Your task to perform on an android device: How much does the TCL TV cost? Image 0: 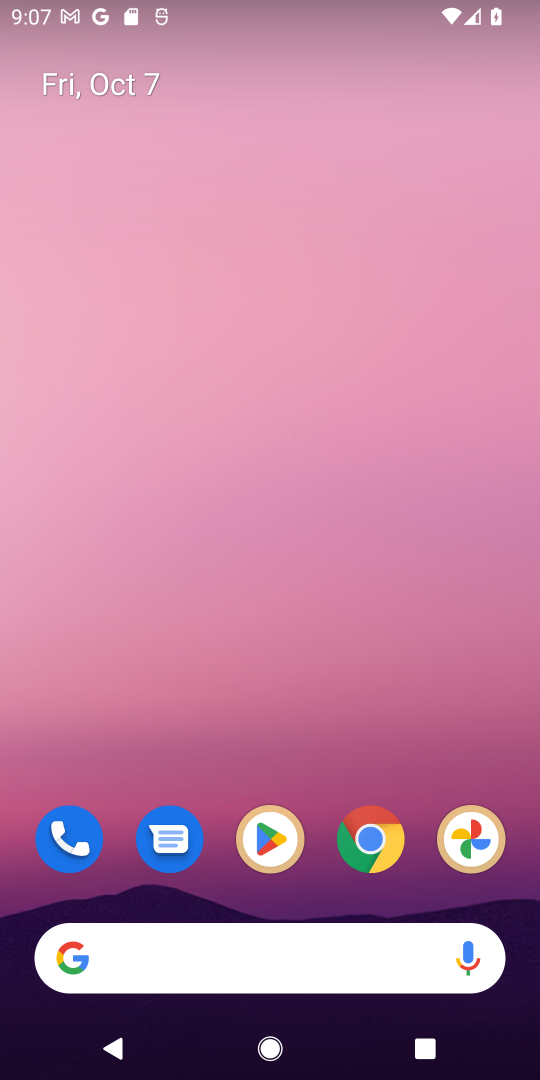
Step 0: click (387, 844)
Your task to perform on an android device: How much does the TCL TV cost? Image 1: 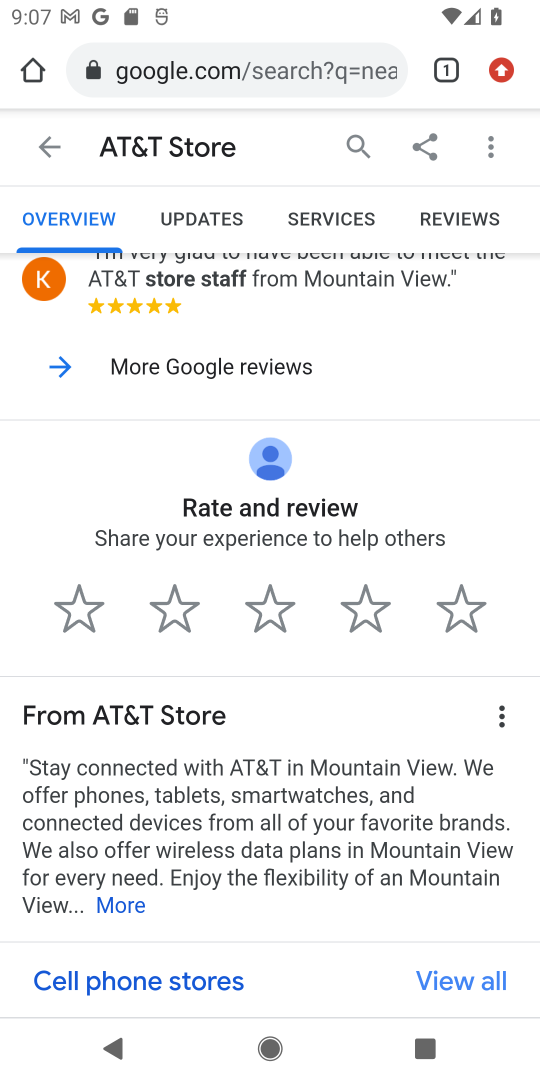
Step 1: click (319, 56)
Your task to perform on an android device: How much does the TCL TV cost? Image 2: 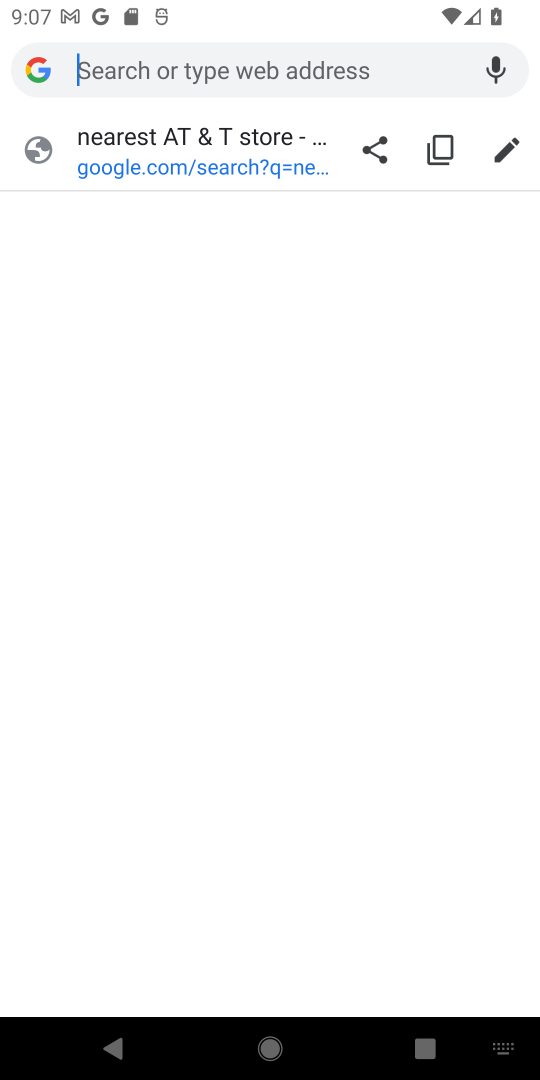
Step 2: type "tcl tv cost"
Your task to perform on an android device: How much does the TCL TV cost? Image 3: 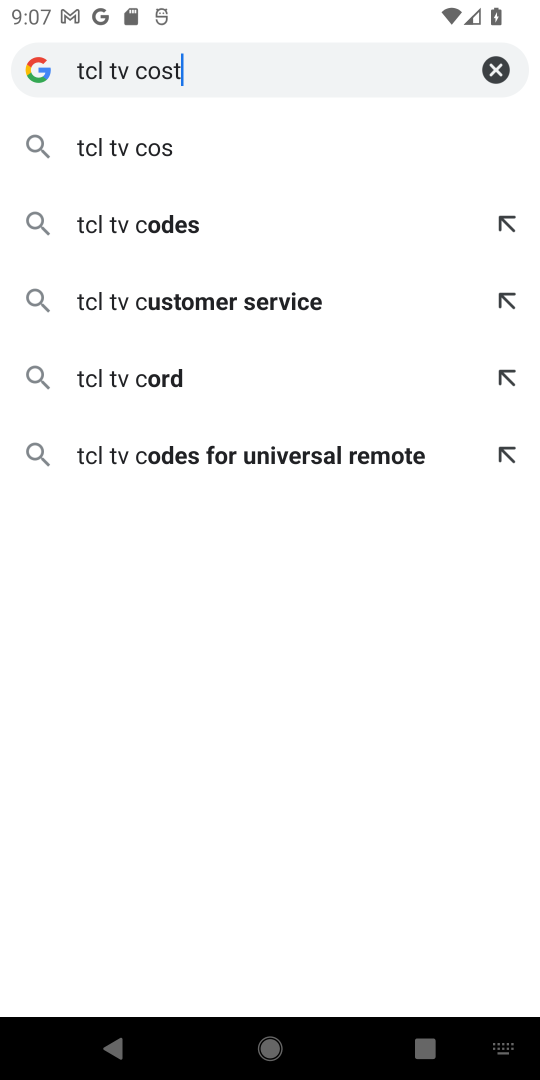
Step 3: type ""
Your task to perform on an android device: How much does the TCL TV cost? Image 4: 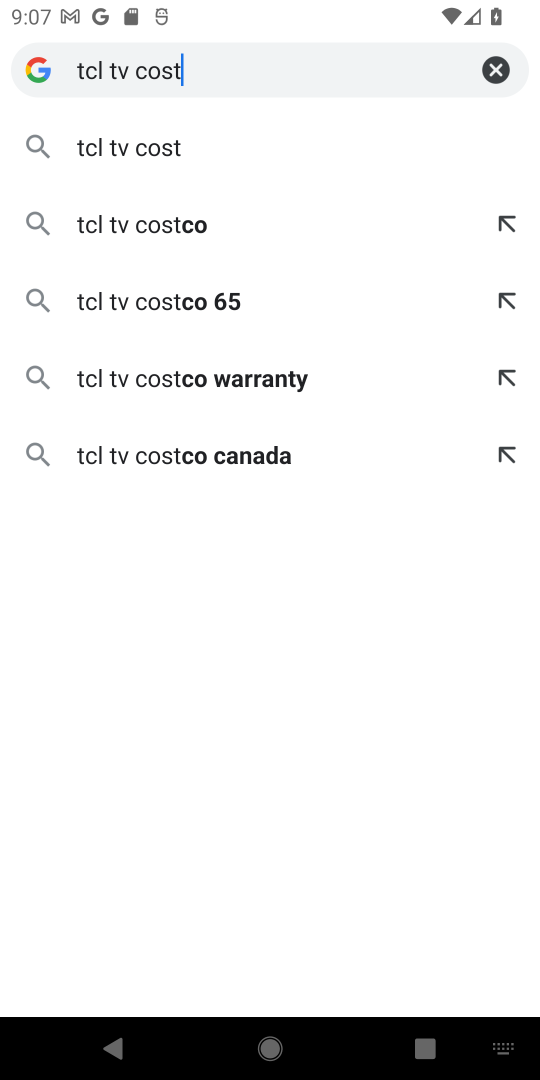
Step 4: click (167, 145)
Your task to perform on an android device: How much does the TCL TV cost? Image 5: 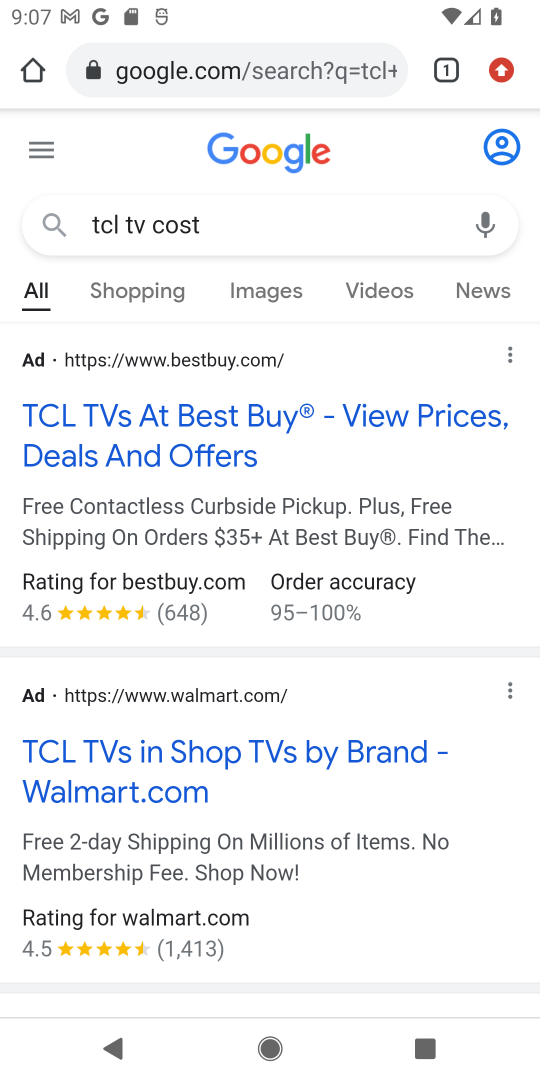
Step 5: drag from (361, 769) to (387, 372)
Your task to perform on an android device: How much does the TCL TV cost? Image 6: 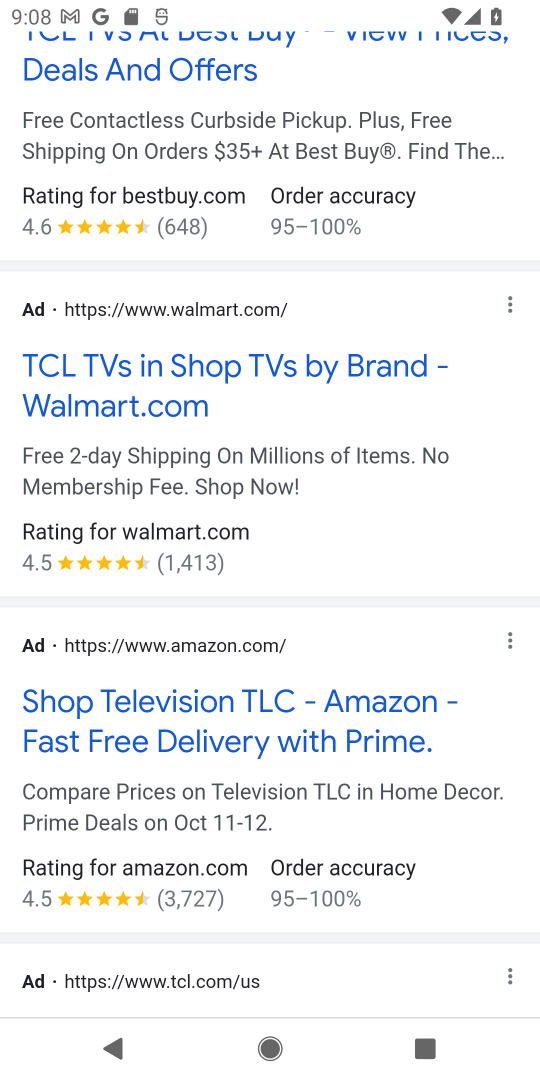
Step 6: drag from (198, 580) to (202, 178)
Your task to perform on an android device: How much does the TCL TV cost? Image 7: 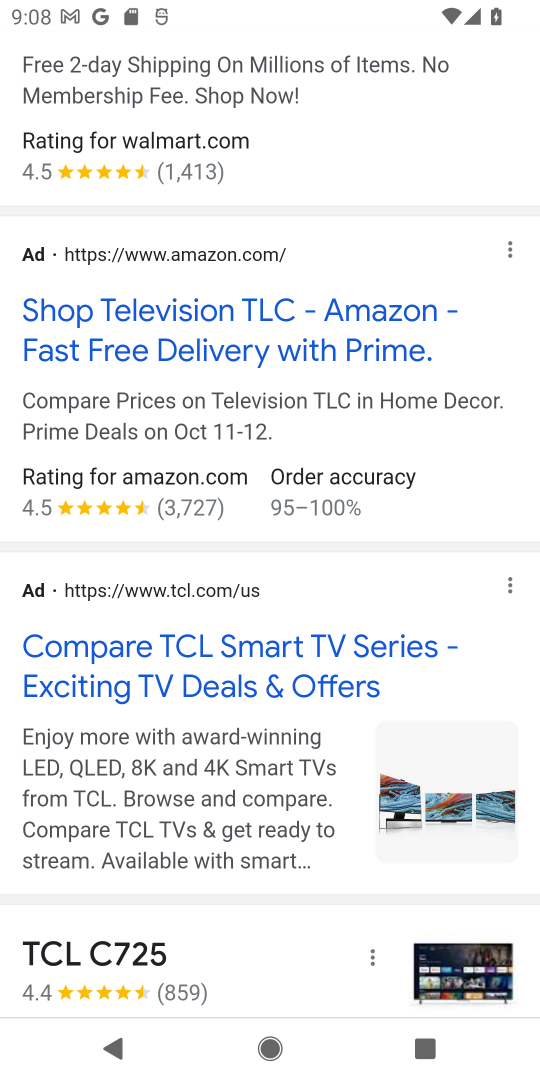
Step 7: drag from (192, 808) to (211, 368)
Your task to perform on an android device: How much does the TCL TV cost? Image 8: 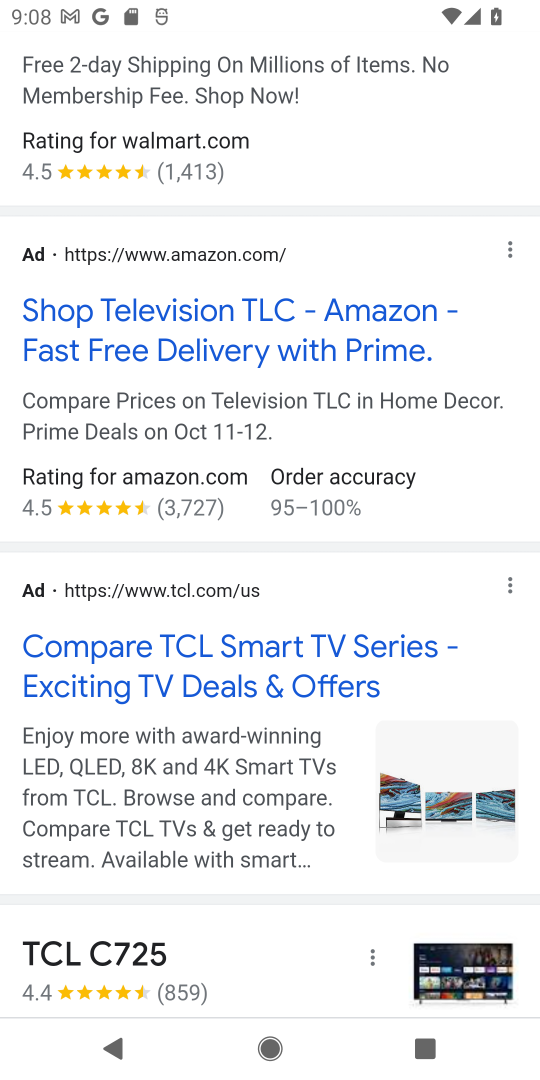
Step 8: drag from (169, 883) to (189, 546)
Your task to perform on an android device: How much does the TCL TV cost? Image 9: 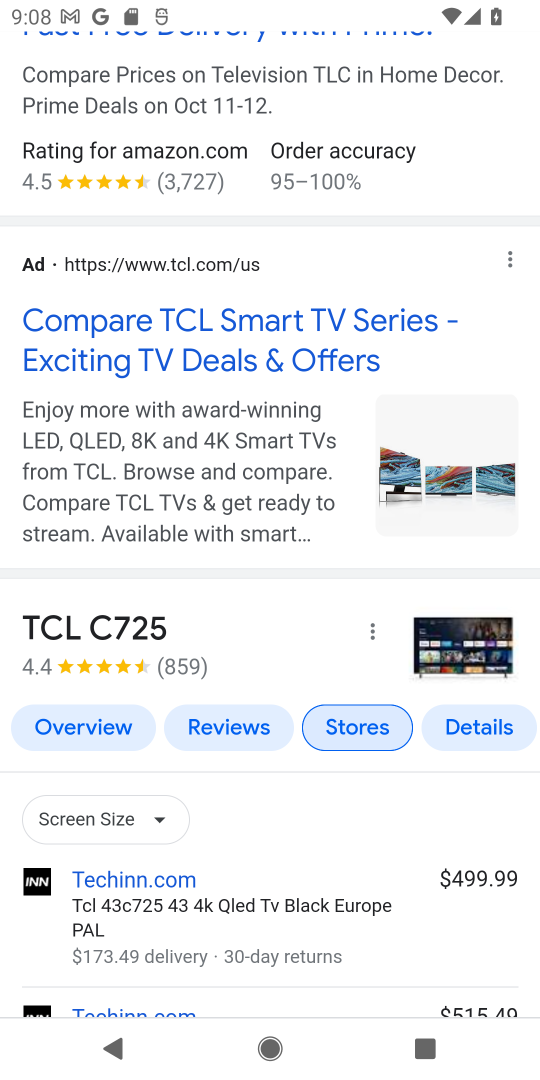
Step 9: drag from (107, 776) to (116, 419)
Your task to perform on an android device: How much does the TCL TV cost? Image 10: 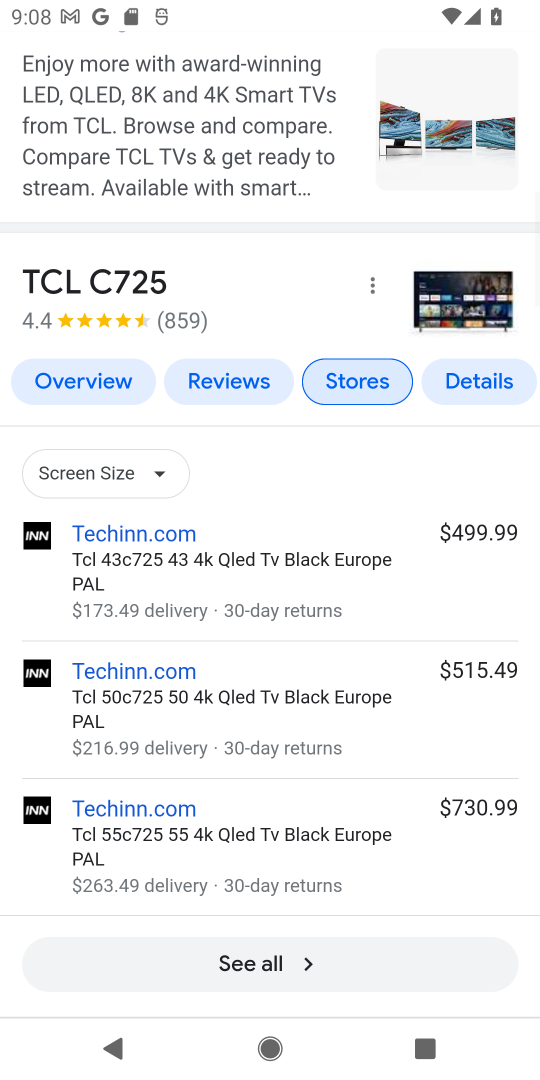
Step 10: drag from (78, 758) to (214, 305)
Your task to perform on an android device: How much does the TCL TV cost? Image 11: 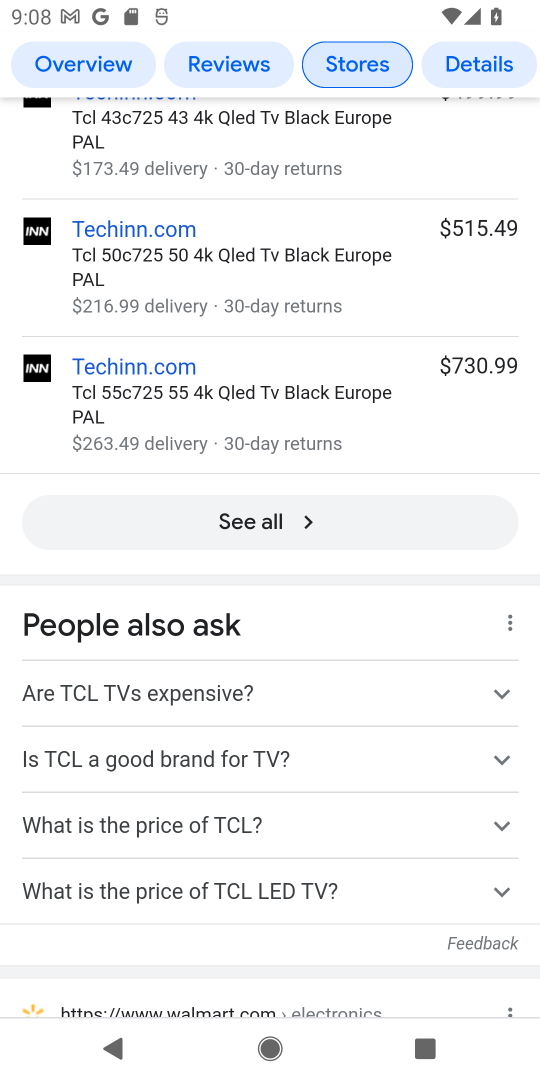
Step 11: click (153, 827)
Your task to perform on an android device: How much does the TCL TV cost? Image 12: 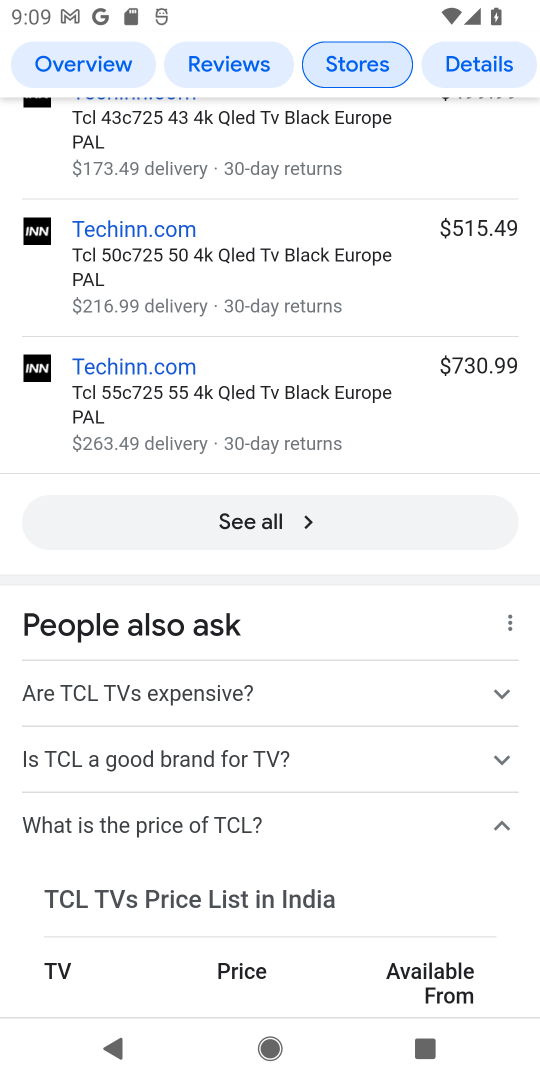
Step 12: task complete